Your task to perform on an android device: delete the emails in spam in the gmail app Image 0: 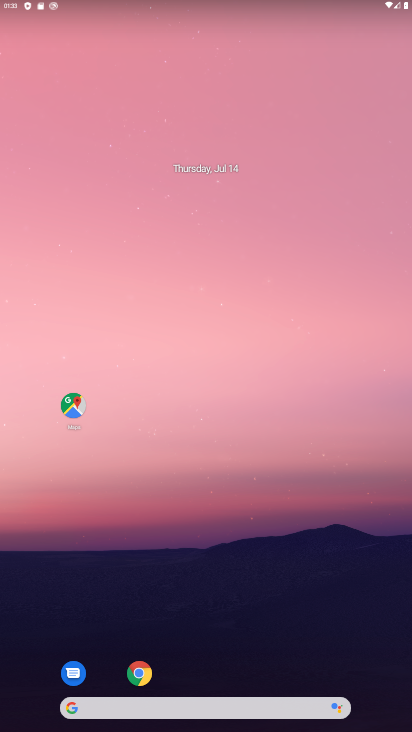
Step 0: drag from (283, 640) to (235, 86)
Your task to perform on an android device: delete the emails in spam in the gmail app Image 1: 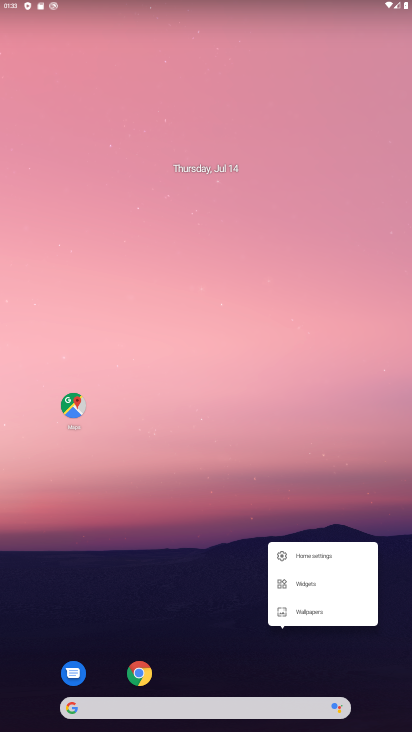
Step 1: click (179, 501)
Your task to perform on an android device: delete the emails in spam in the gmail app Image 2: 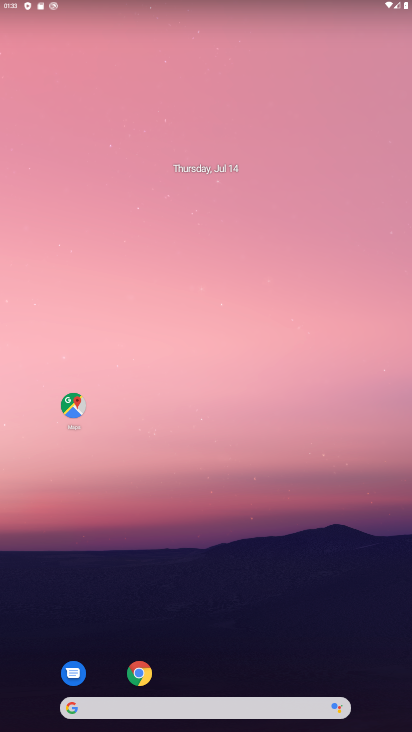
Step 2: drag from (217, 682) to (197, 71)
Your task to perform on an android device: delete the emails in spam in the gmail app Image 3: 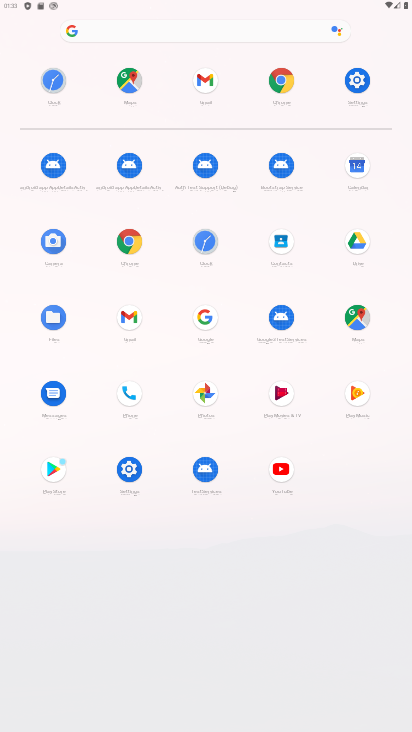
Step 3: click (212, 94)
Your task to perform on an android device: delete the emails in spam in the gmail app Image 4: 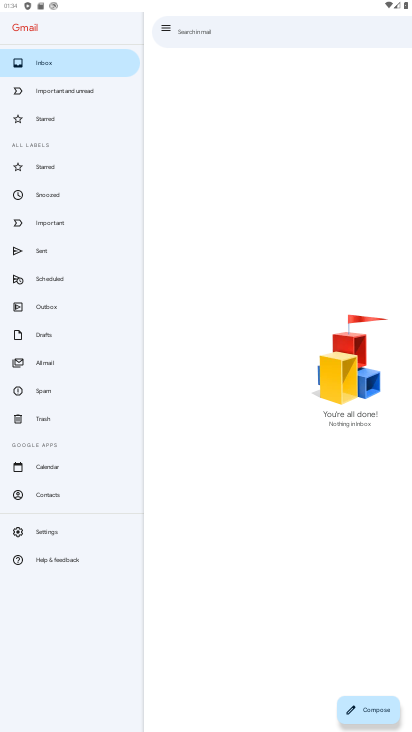
Step 4: click (61, 387)
Your task to perform on an android device: delete the emails in spam in the gmail app Image 5: 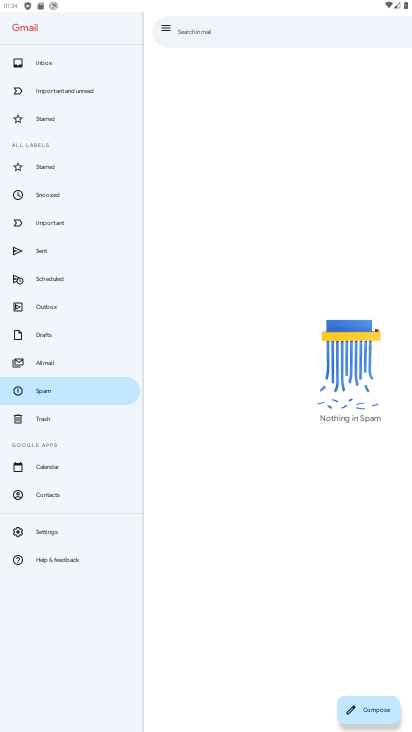
Step 5: task complete